Your task to perform on an android device: open chrome and create a bookmark for the current page Image 0: 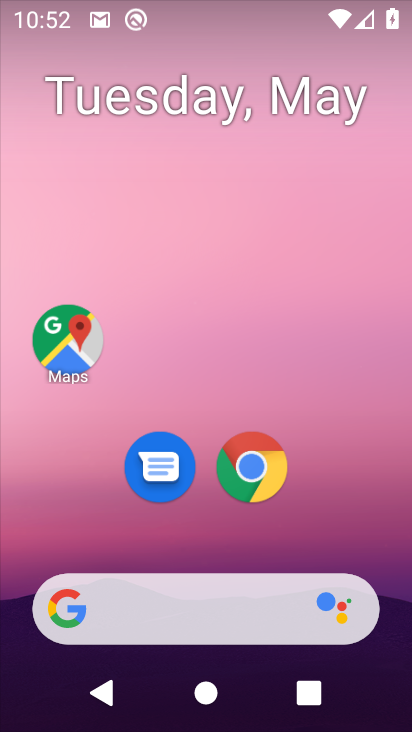
Step 0: drag from (207, 537) to (248, 192)
Your task to perform on an android device: open chrome and create a bookmark for the current page Image 1: 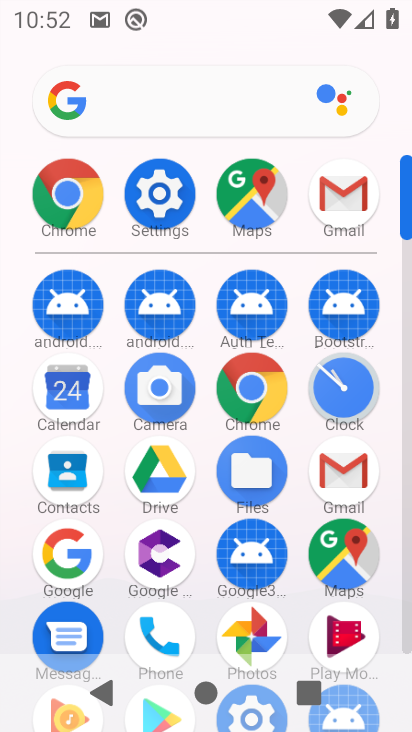
Step 1: click (251, 385)
Your task to perform on an android device: open chrome and create a bookmark for the current page Image 2: 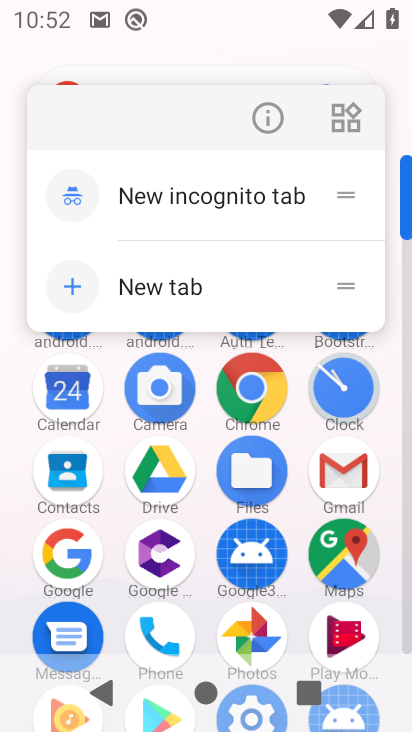
Step 2: click (262, 105)
Your task to perform on an android device: open chrome and create a bookmark for the current page Image 3: 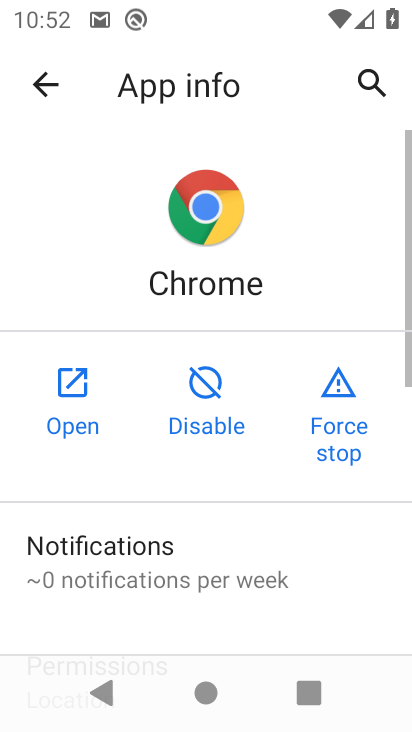
Step 3: click (76, 411)
Your task to perform on an android device: open chrome and create a bookmark for the current page Image 4: 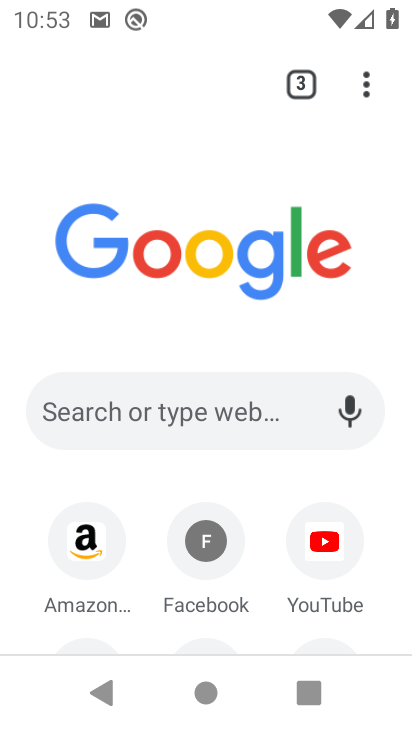
Step 4: click (369, 83)
Your task to perform on an android device: open chrome and create a bookmark for the current page Image 5: 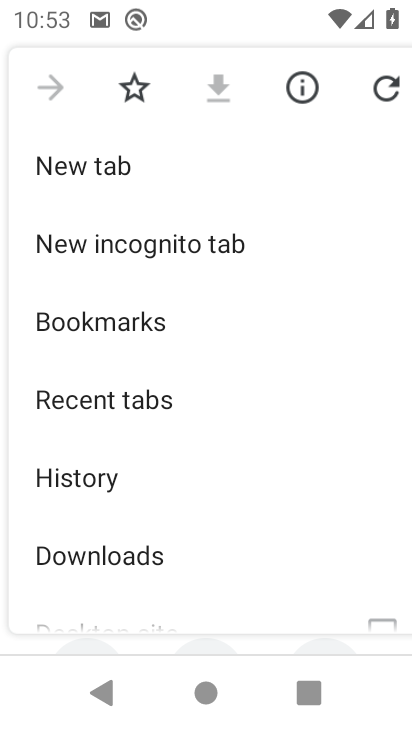
Step 5: click (122, 337)
Your task to perform on an android device: open chrome and create a bookmark for the current page Image 6: 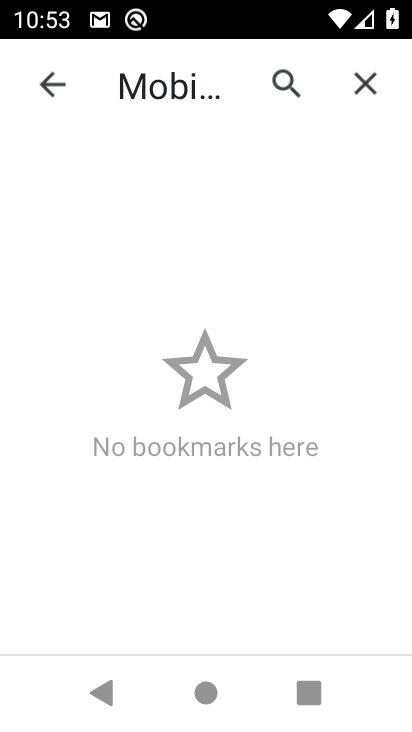
Step 6: click (369, 91)
Your task to perform on an android device: open chrome and create a bookmark for the current page Image 7: 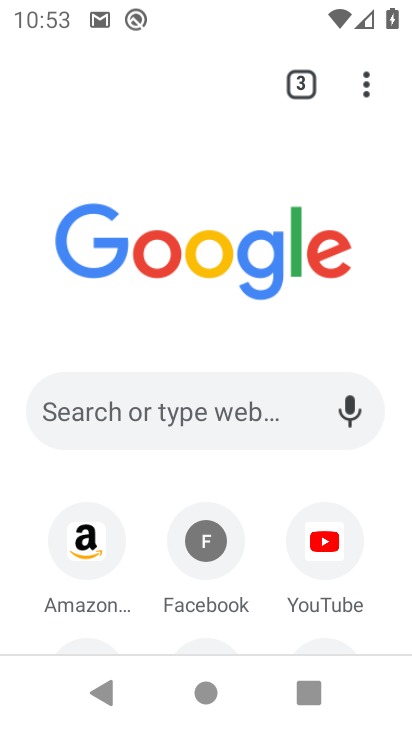
Step 7: click (364, 76)
Your task to perform on an android device: open chrome and create a bookmark for the current page Image 8: 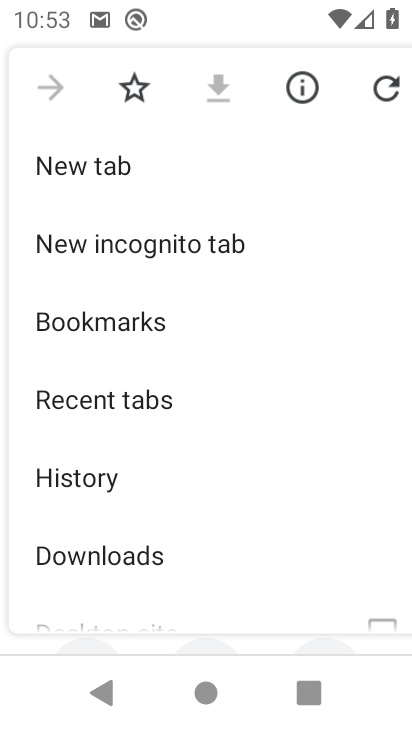
Step 8: click (147, 100)
Your task to perform on an android device: open chrome and create a bookmark for the current page Image 9: 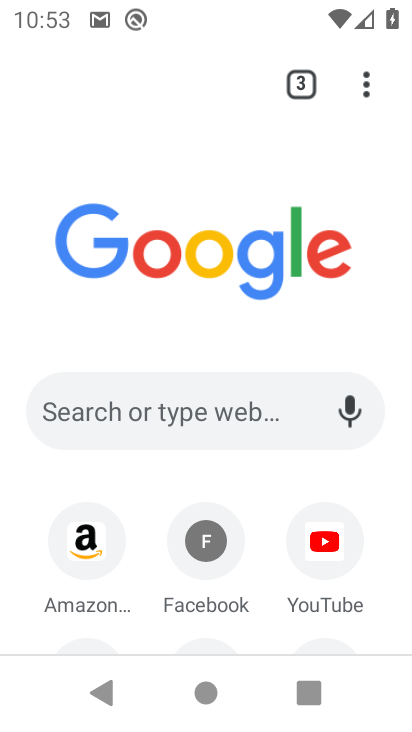
Step 9: task complete